Your task to perform on an android device: turn on data saver in the chrome app Image 0: 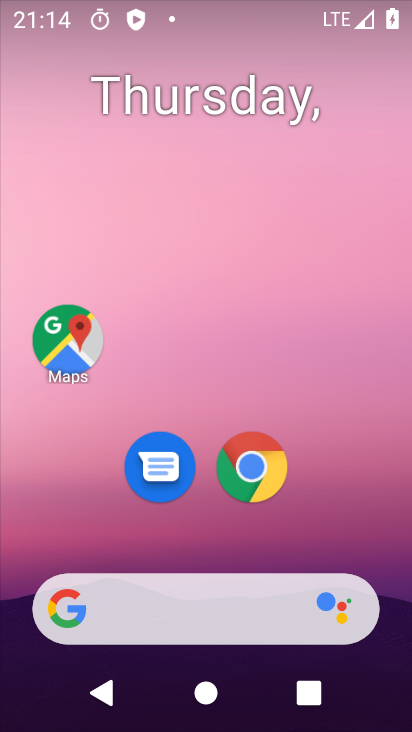
Step 0: click (250, 465)
Your task to perform on an android device: turn on data saver in the chrome app Image 1: 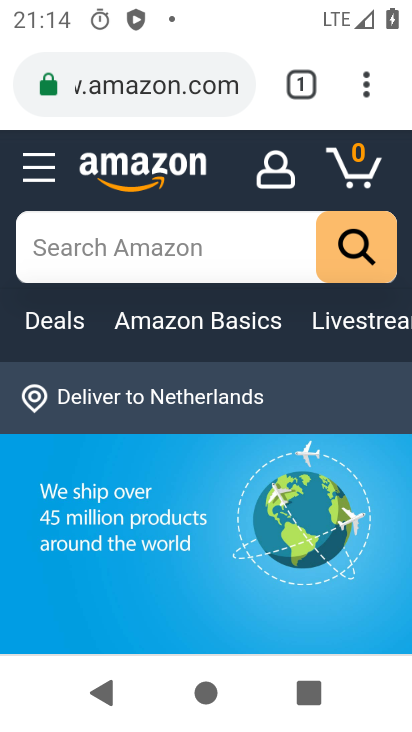
Step 1: click (371, 83)
Your task to perform on an android device: turn on data saver in the chrome app Image 2: 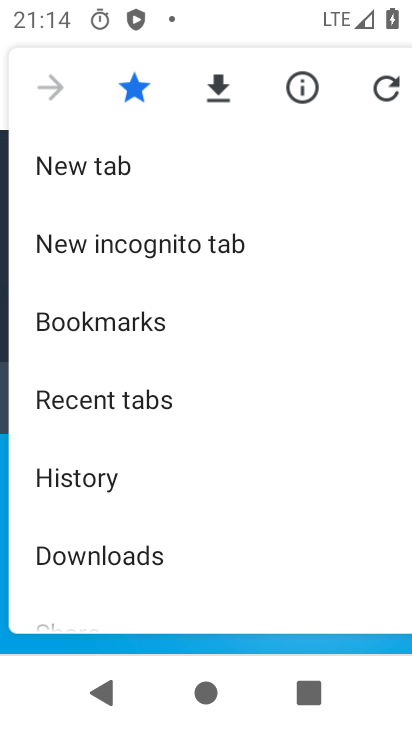
Step 2: drag from (233, 502) to (271, 146)
Your task to perform on an android device: turn on data saver in the chrome app Image 3: 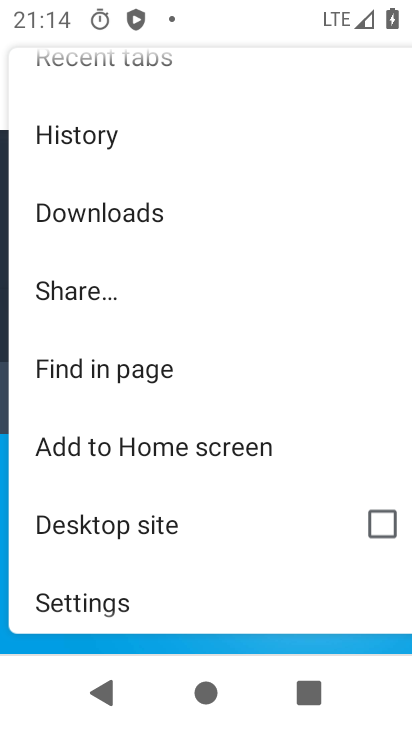
Step 3: drag from (190, 443) to (264, 187)
Your task to perform on an android device: turn on data saver in the chrome app Image 4: 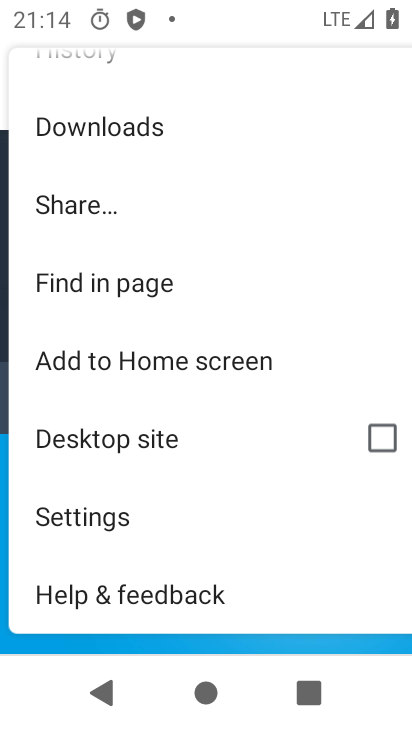
Step 4: click (106, 524)
Your task to perform on an android device: turn on data saver in the chrome app Image 5: 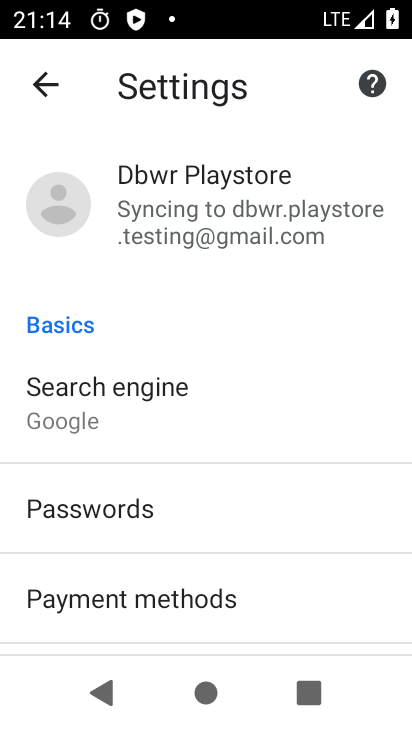
Step 5: drag from (271, 559) to (302, 181)
Your task to perform on an android device: turn on data saver in the chrome app Image 6: 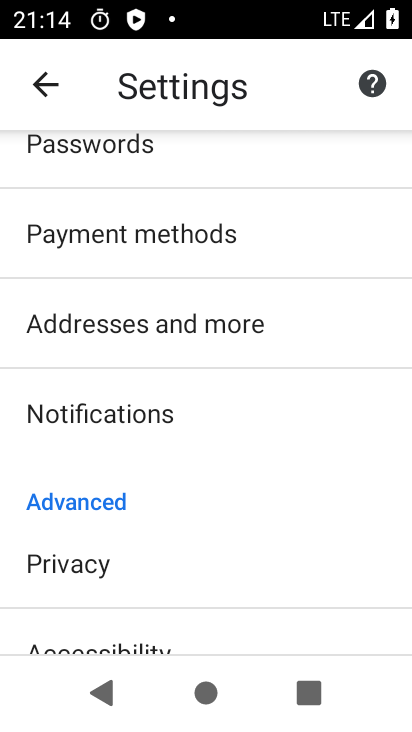
Step 6: drag from (211, 593) to (281, 241)
Your task to perform on an android device: turn on data saver in the chrome app Image 7: 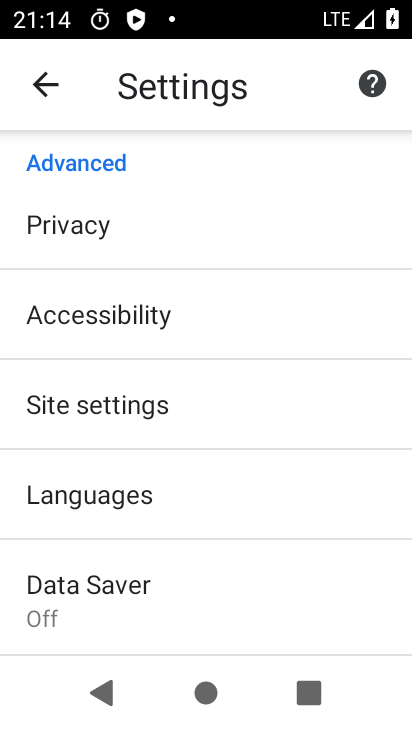
Step 7: click (103, 594)
Your task to perform on an android device: turn on data saver in the chrome app Image 8: 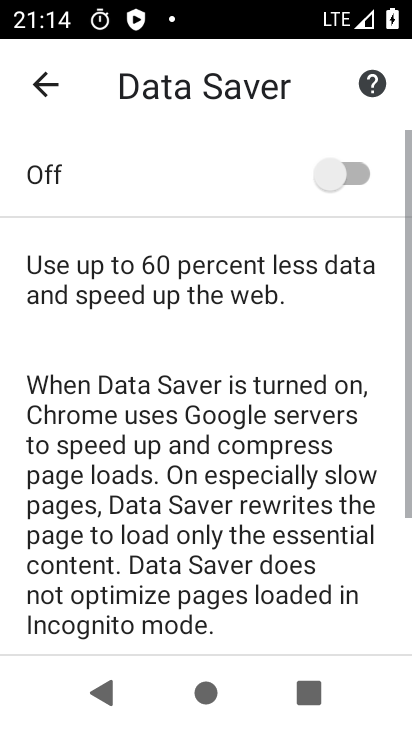
Step 8: click (342, 161)
Your task to perform on an android device: turn on data saver in the chrome app Image 9: 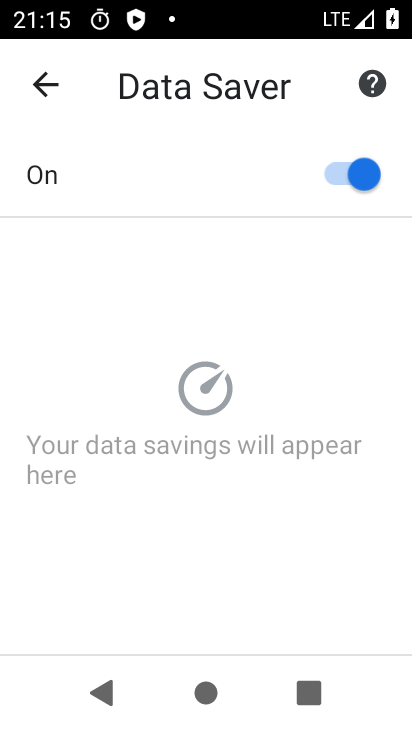
Step 9: task complete